Your task to perform on an android device: Open display settings Image 0: 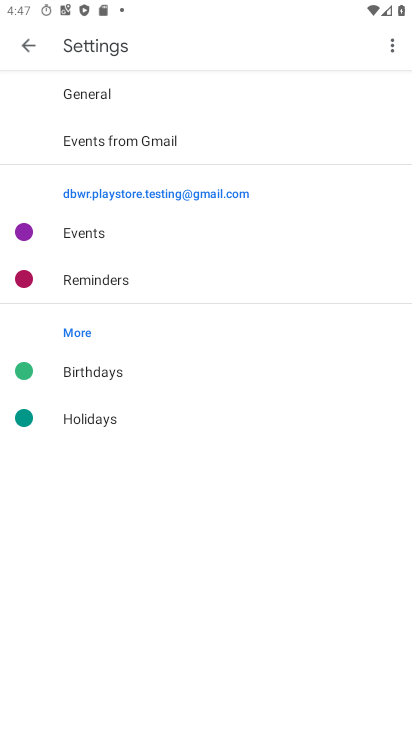
Step 0: press back button
Your task to perform on an android device: Open display settings Image 1: 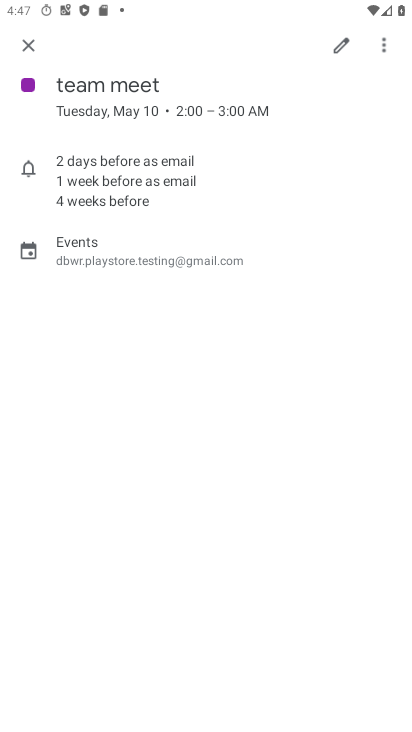
Step 1: press back button
Your task to perform on an android device: Open display settings Image 2: 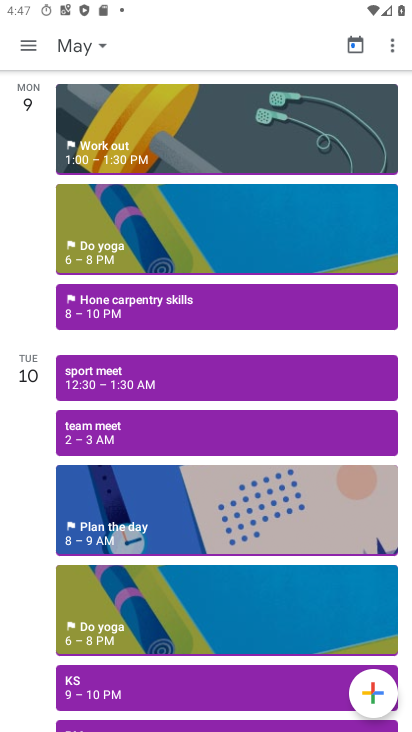
Step 2: press back button
Your task to perform on an android device: Open display settings Image 3: 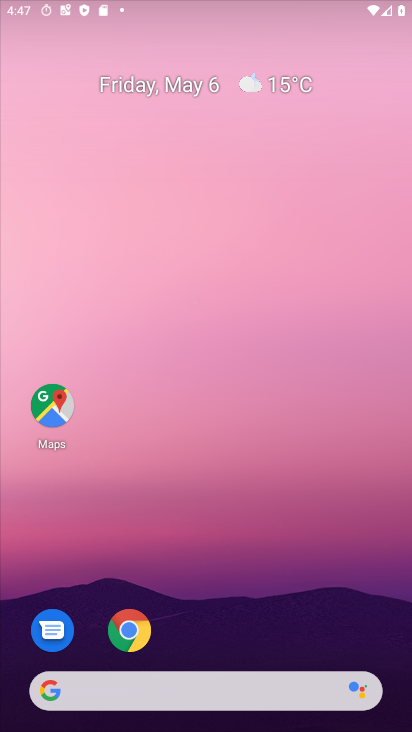
Step 3: drag from (215, 594) to (302, 70)
Your task to perform on an android device: Open display settings Image 4: 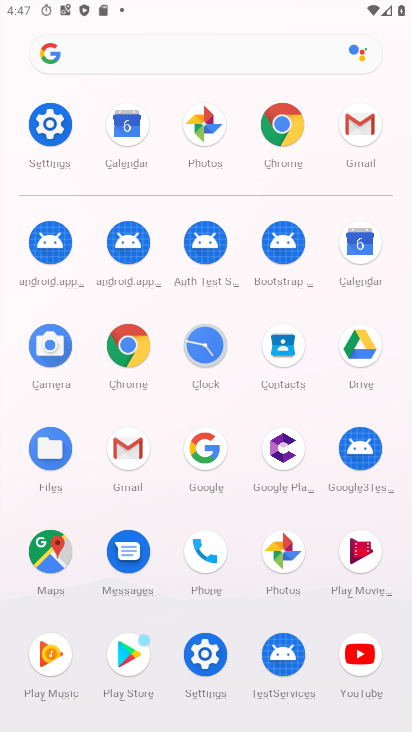
Step 4: click (52, 120)
Your task to perform on an android device: Open display settings Image 5: 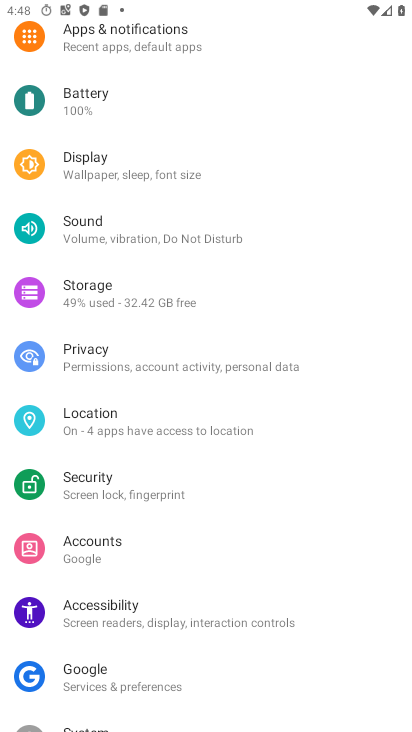
Step 5: click (102, 161)
Your task to perform on an android device: Open display settings Image 6: 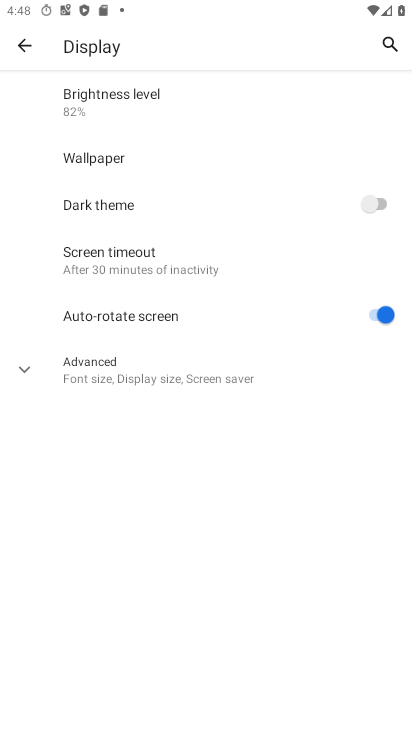
Step 6: task complete